Your task to perform on an android device: What's the weather going to be tomorrow? Image 0: 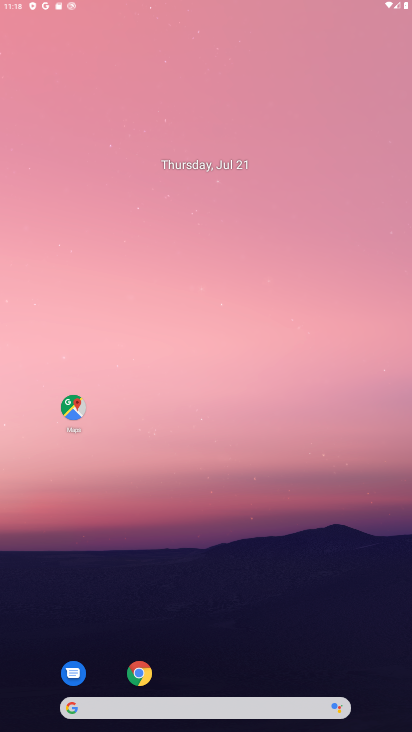
Step 0: press home button
Your task to perform on an android device: What's the weather going to be tomorrow? Image 1: 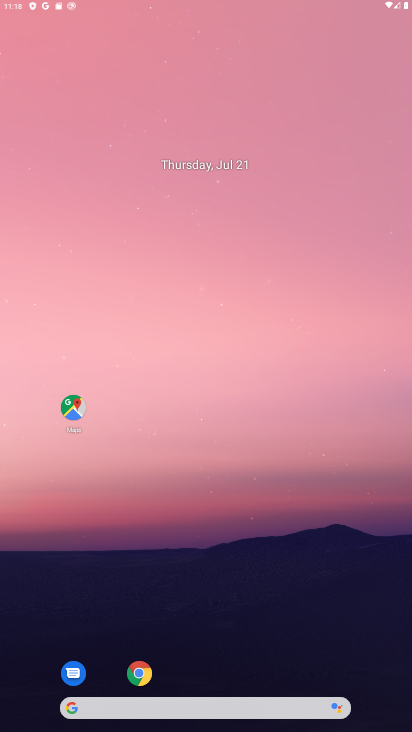
Step 1: click (155, 701)
Your task to perform on an android device: What's the weather going to be tomorrow? Image 2: 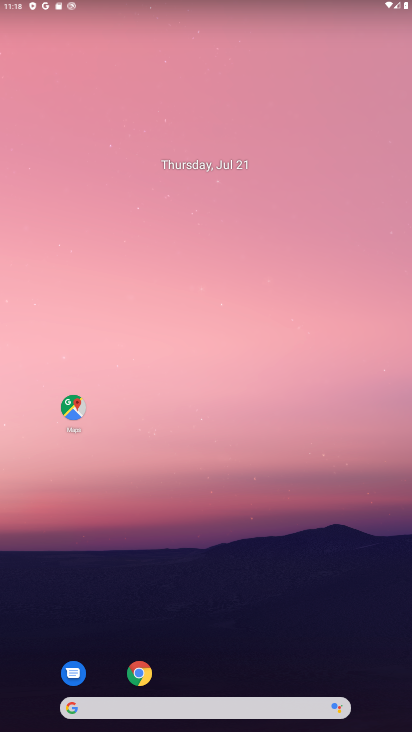
Step 2: click (174, 705)
Your task to perform on an android device: What's the weather going to be tomorrow? Image 3: 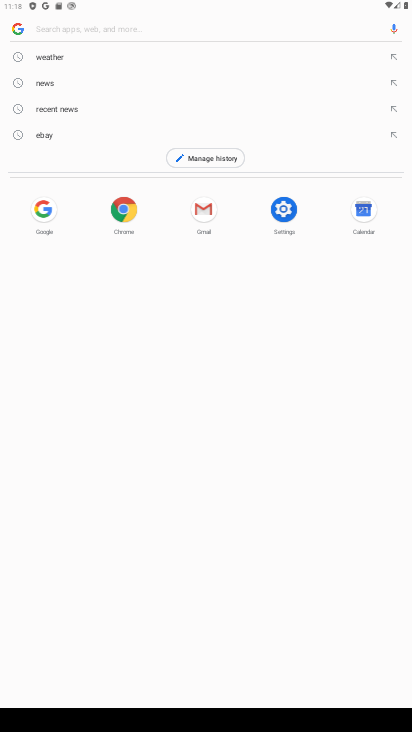
Step 3: click (74, 52)
Your task to perform on an android device: What's the weather going to be tomorrow? Image 4: 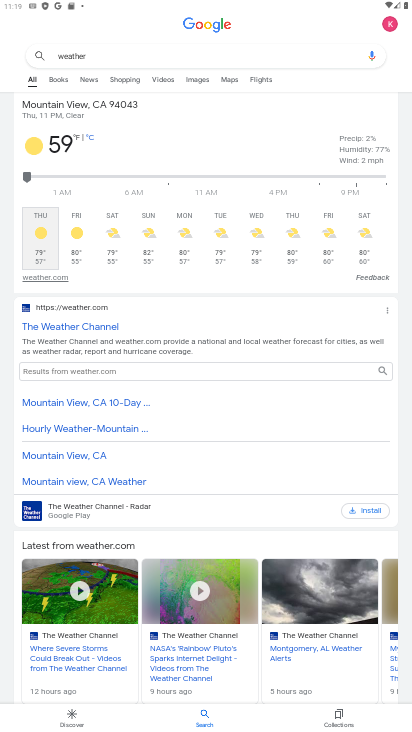
Step 4: click (75, 228)
Your task to perform on an android device: What's the weather going to be tomorrow? Image 5: 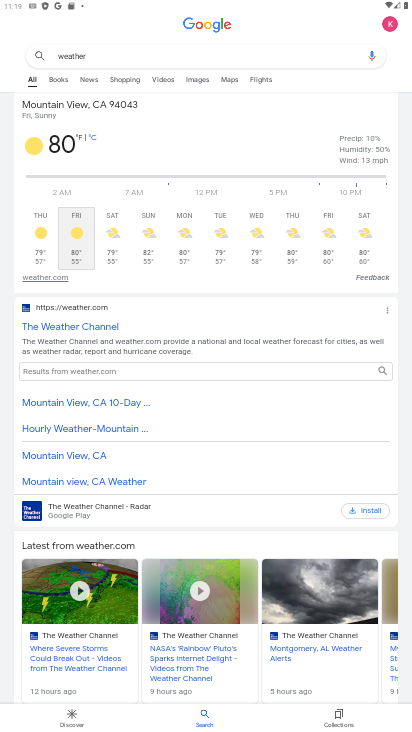
Step 5: task complete